Your task to perform on an android device: check battery use Image 0: 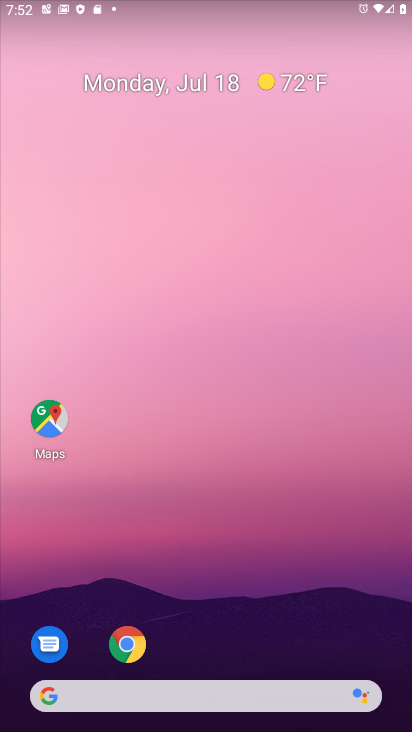
Step 0: drag from (384, 668) to (175, 0)
Your task to perform on an android device: check battery use Image 1: 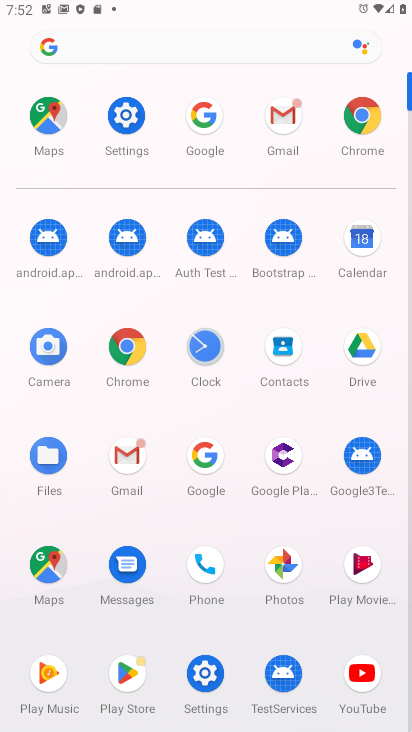
Step 1: click (189, 678)
Your task to perform on an android device: check battery use Image 2: 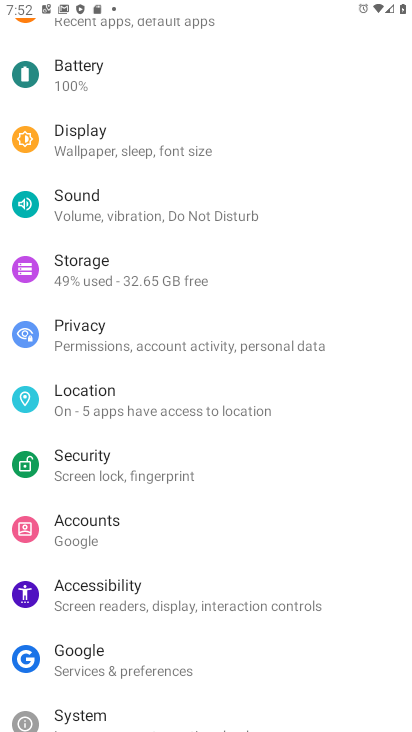
Step 2: click (136, 74)
Your task to perform on an android device: check battery use Image 3: 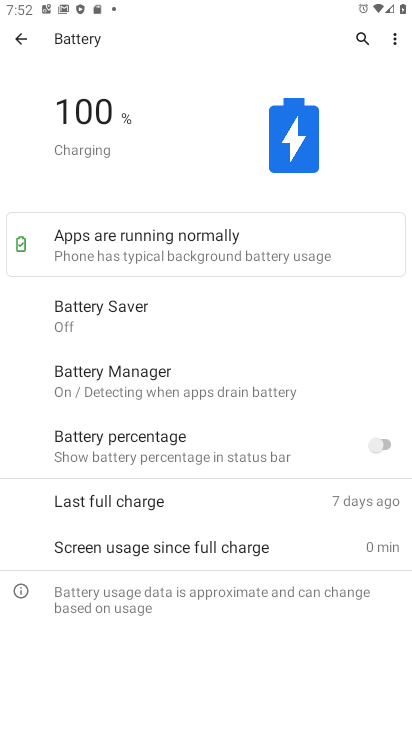
Step 3: click (400, 33)
Your task to perform on an android device: check battery use Image 4: 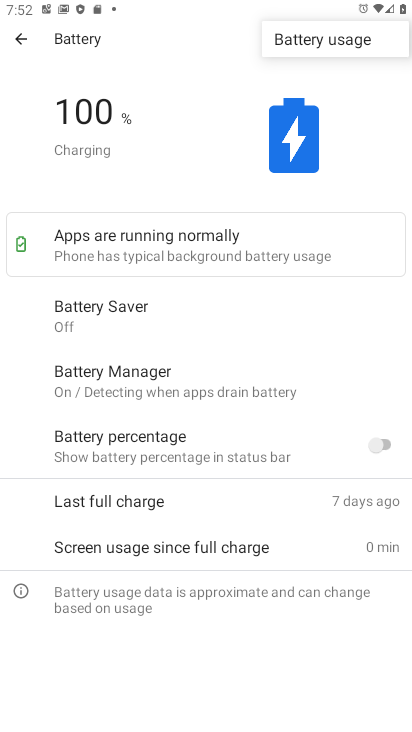
Step 4: click (345, 46)
Your task to perform on an android device: check battery use Image 5: 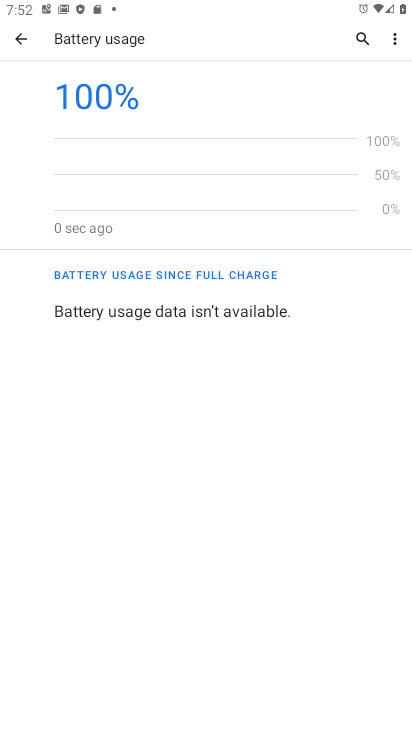
Step 5: task complete